Your task to perform on an android device: turn off notifications in google photos Image 0: 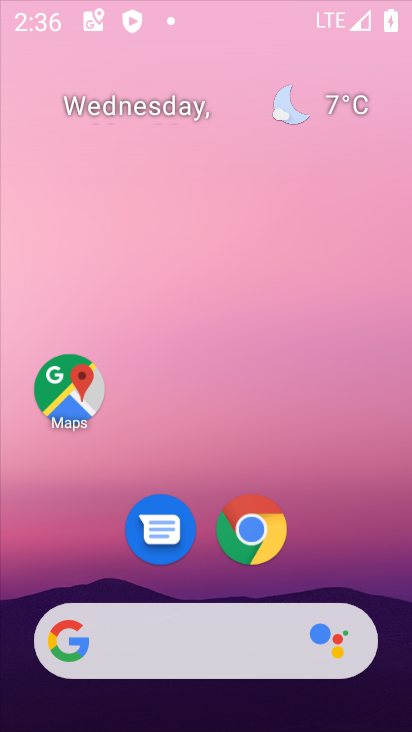
Step 0: click (336, 102)
Your task to perform on an android device: turn off notifications in google photos Image 1: 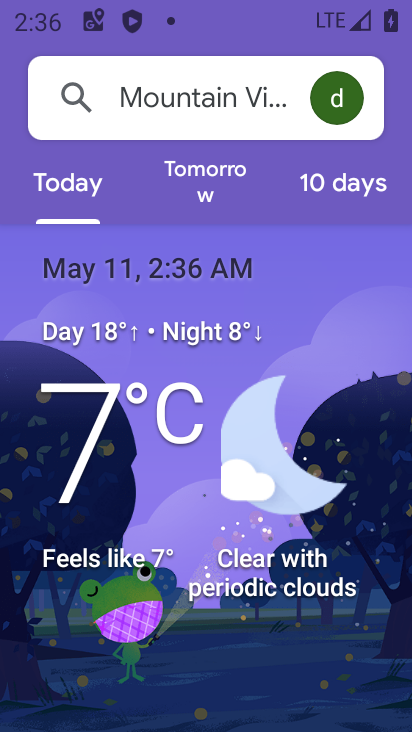
Step 1: press home button
Your task to perform on an android device: turn off notifications in google photos Image 2: 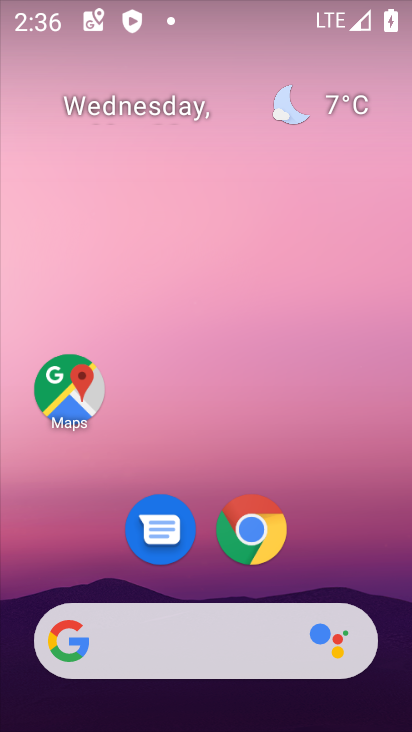
Step 2: drag from (356, 531) to (296, 74)
Your task to perform on an android device: turn off notifications in google photos Image 3: 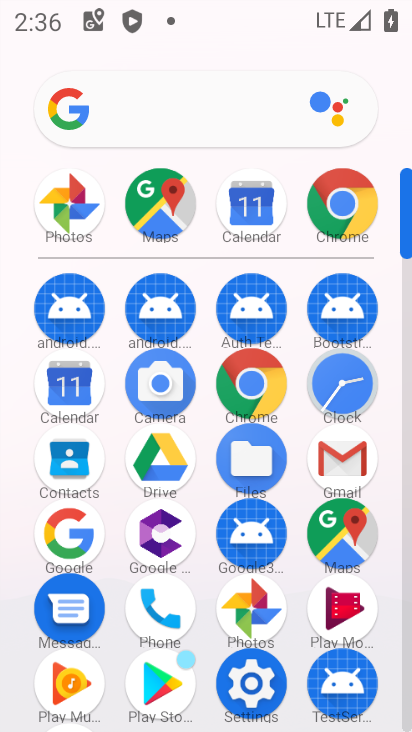
Step 3: click (68, 192)
Your task to perform on an android device: turn off notifications in google photos Image 4: 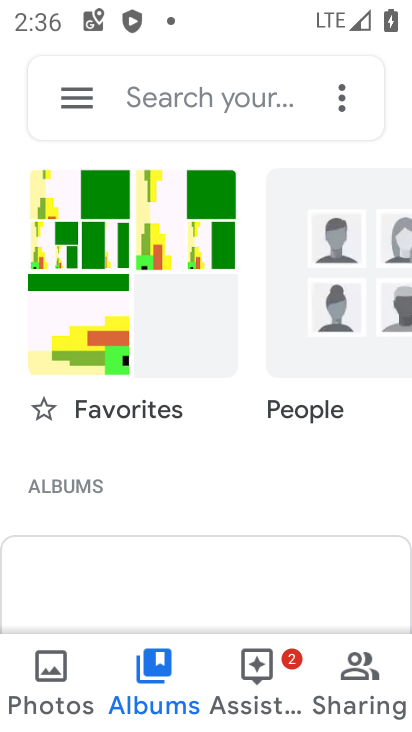
Step 4: click (64, 99)
Your task to perform on an android device: turn off notifications in google photos Image 5: 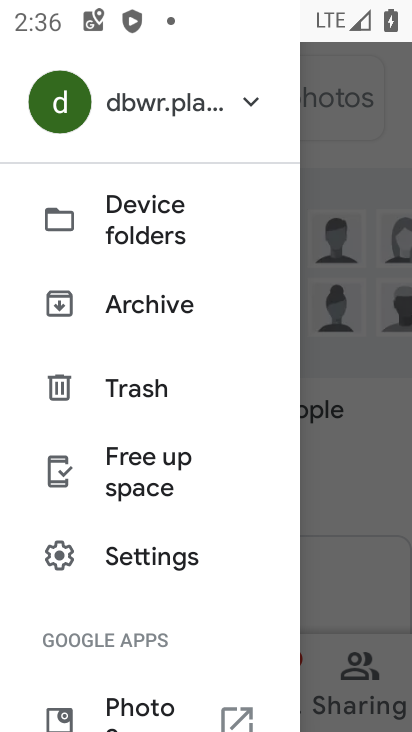
Step 5: click (147, 566)
Your task to perform on an android device: turn off notifications in google photos Image 6: 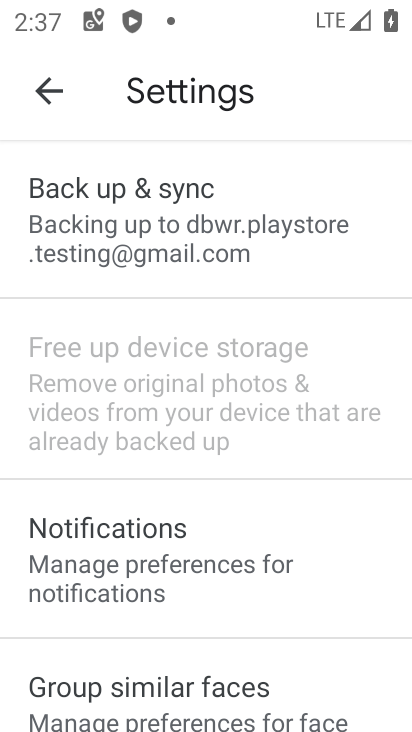
Step 6: click (186, 536)
Your task to perform on an android device: turn off notifications in google photos Image 7: 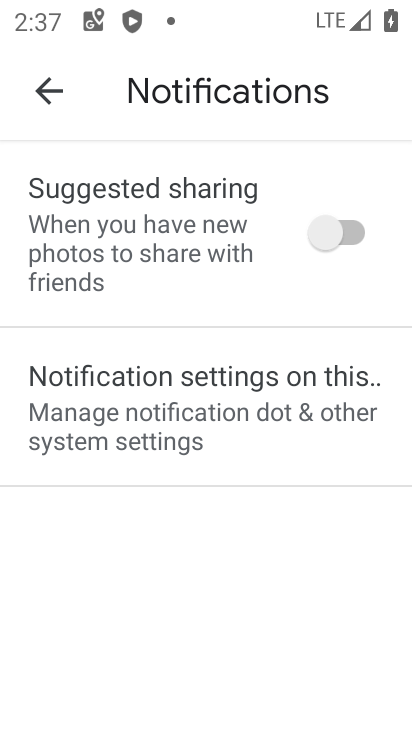
Step 7: click (186, 396)
Your task to perform on an android device: turn off notifications in google photos Image 8: 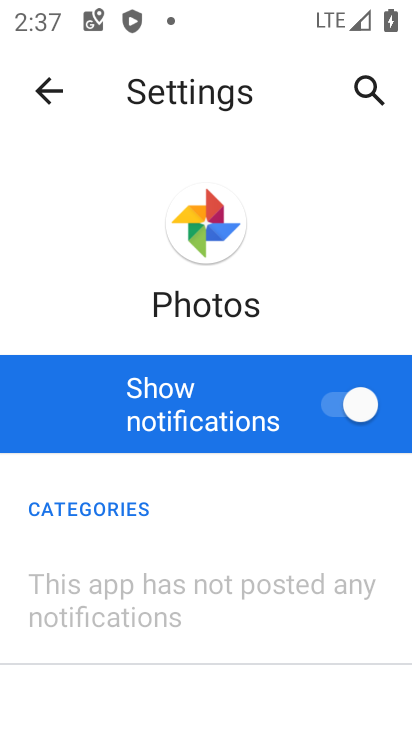
Step 8: click (353, 399)
Your task to perform on an android device: turn off notifications in google photos Image 9: 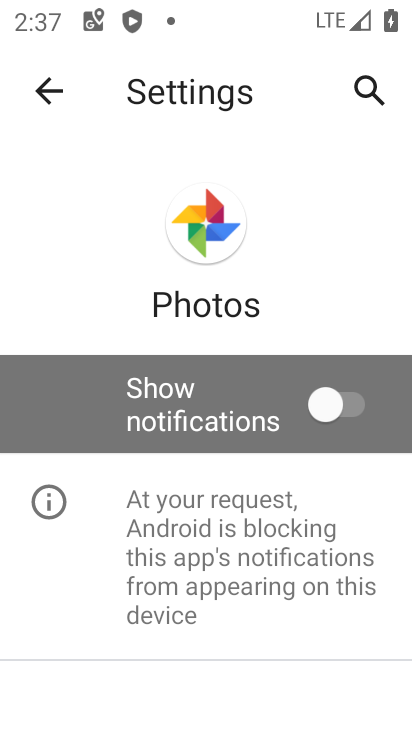
Step 9: task complete